Your task to perform on an android device: See recent photos Image 0: 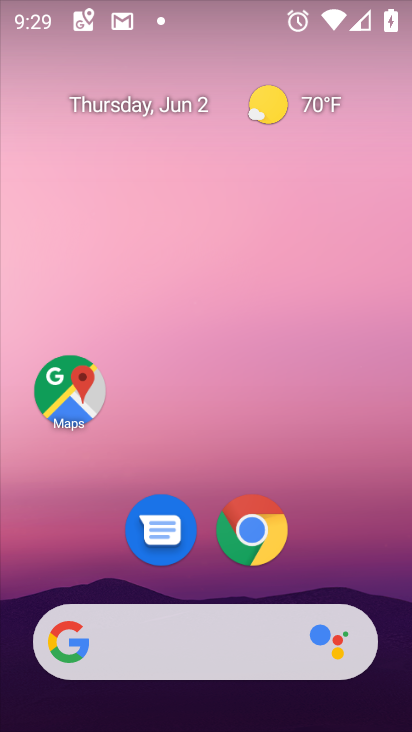
Step 0: drag from (180, 527) to (180, 249)
Your task to perform on an android device: See recent photos Image 1: 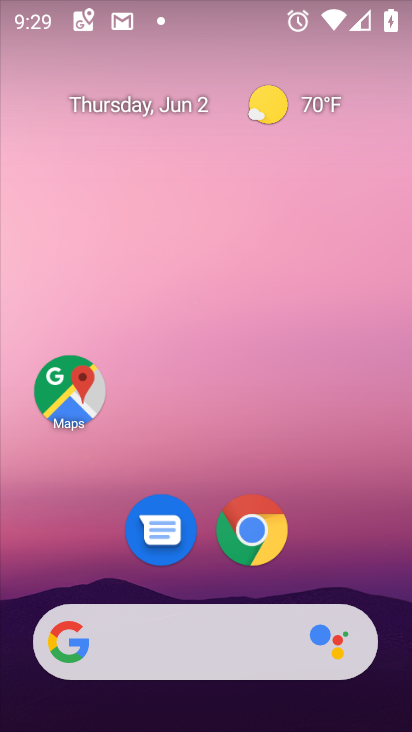
Step 1: drag from (203, 595) to (203, 224)
Your task to perform on an android device: See recent photos Image 2: 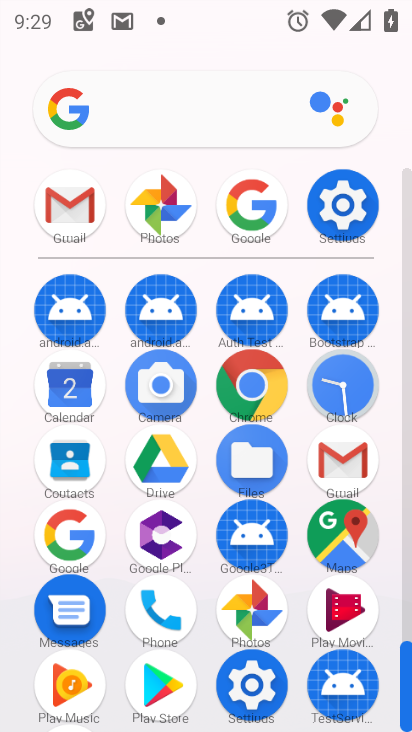
Step 2: click (246, 609)
Your task to perform on an android device: See recent photos Image 3: 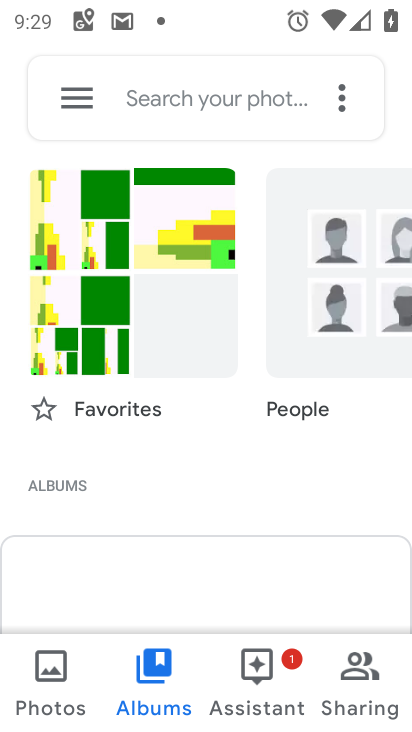
Step 3: click (49, 684)
Your task to perform on an android device: See recent photos Image 4: 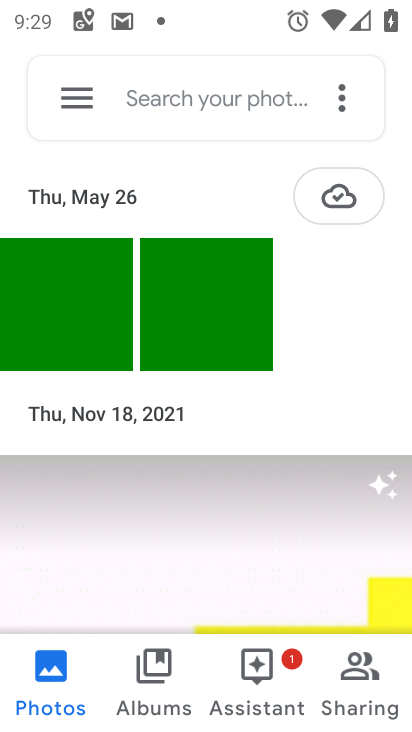
Step 4: click (73, 293)
Your task to perform on an android device: See recent photos Image 5: 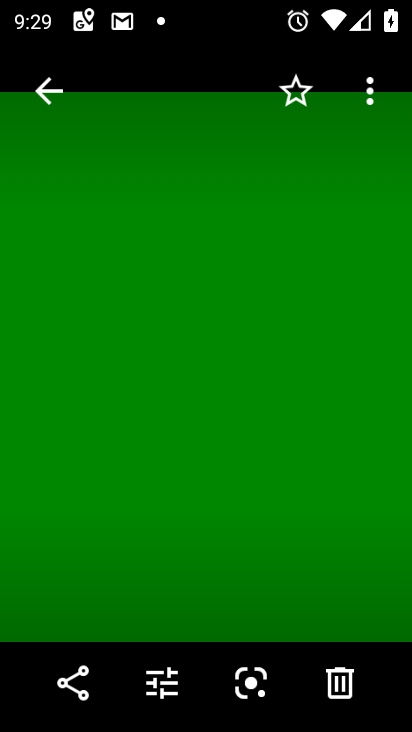
Step 5: task complete